Your task to perform on an android device: Open ESPN.com Image 0: 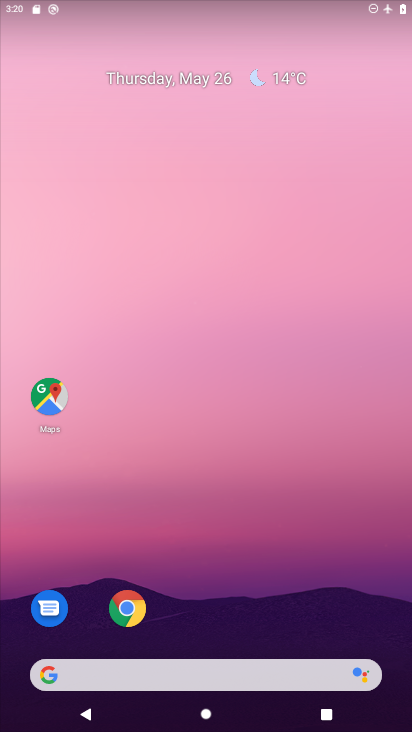
Step 0: drag from (299, 610) to (354, 63)
Your task to perform on an android device: Open ESPN.com Image 1: 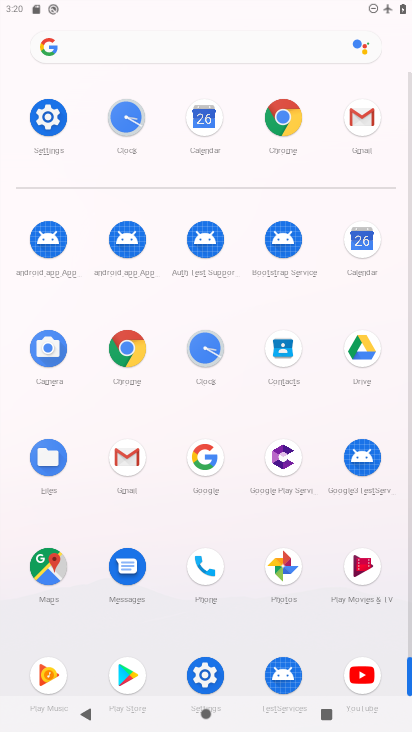
Step 1: click (281, 118)
Your task to perform on an android device: Open ESPN.com Image 2: 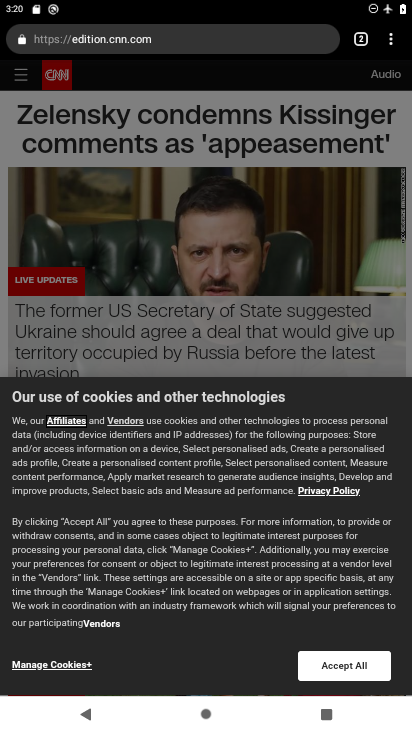
Step 2: click (231, 35)
Your task to perform on an android device: Open ESPN.com Image 3: 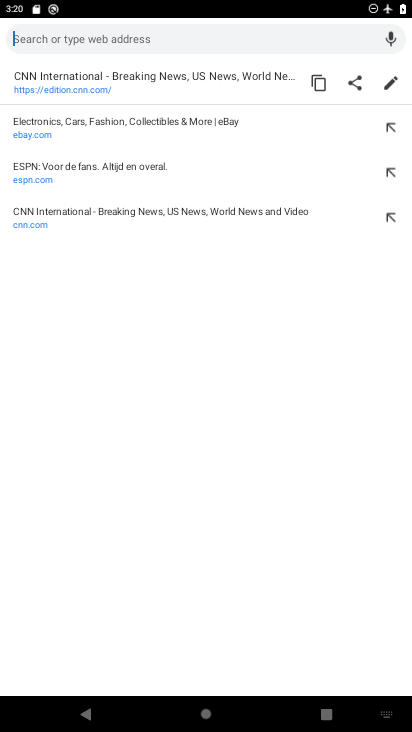
Step 3: click (55, 168)
Your task to perform on an android device: Open ESPN.com Image 4: 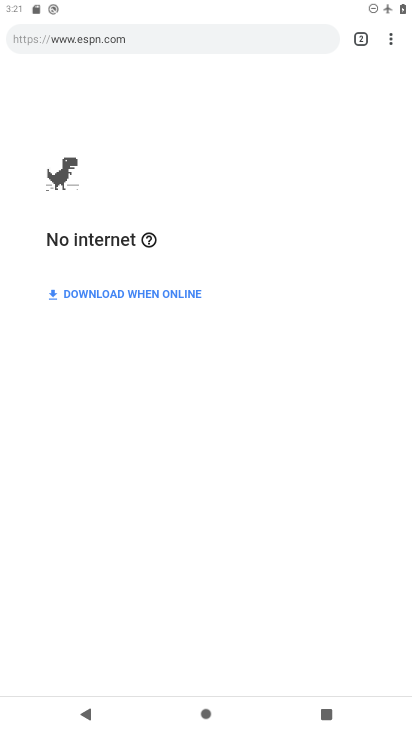
Step 4: task complete